Your task to perform on an android device: create a new album in the google photos Image 0: 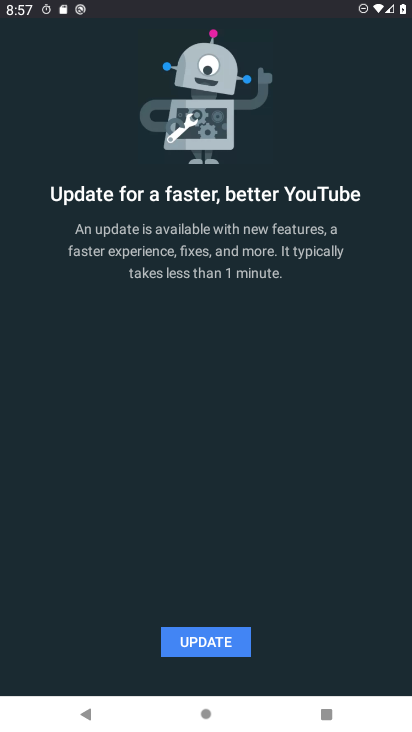
Step 0: press back button
Your task to perform on an android device: create a new album in the google photos Image 1: 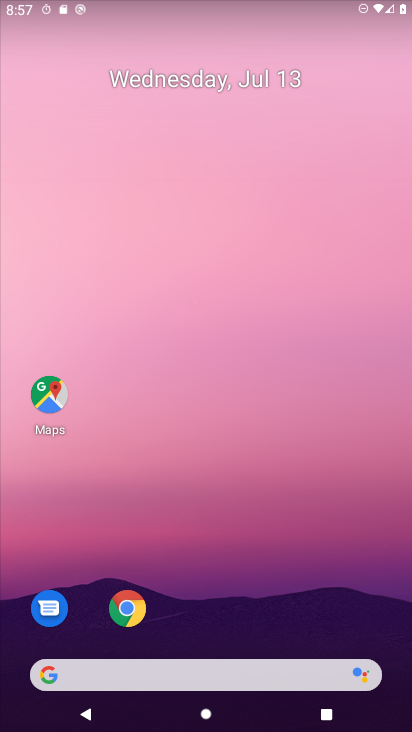
Step 1: drag from (245, 568) to (150, 306)
Your task to perform on an android device: create a new album in the google photos Image 2: 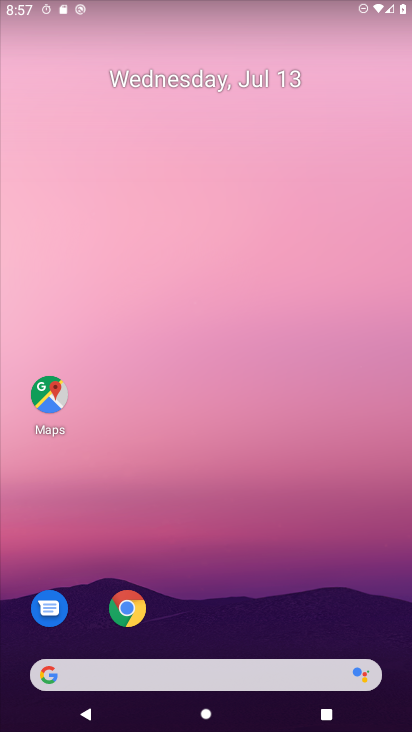
Step 2: drag from (273, 656) to (209, 328)
Your task to perform on an android device: create a new album in the google photos Image 3: 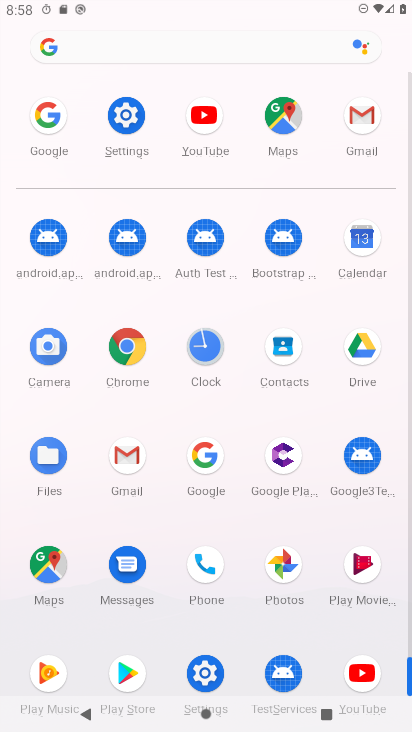
Step 3: click (278, 570)
Your task to perform on an android device: create a new album in the google photos Image 4: 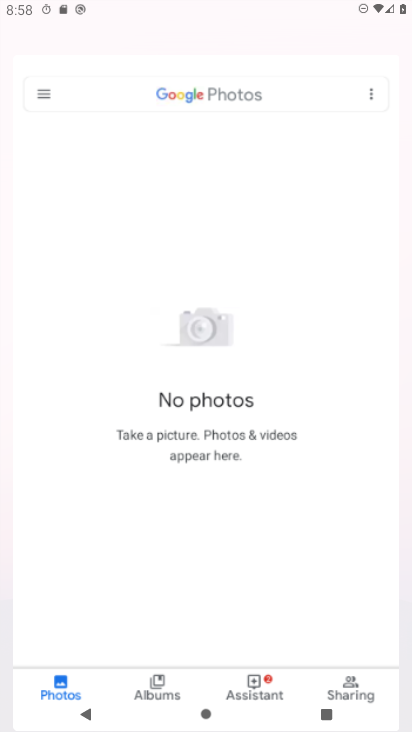
Step 4: click (278, 570)
Your task to perform on an android device: create a new album in the google photos Image 5: 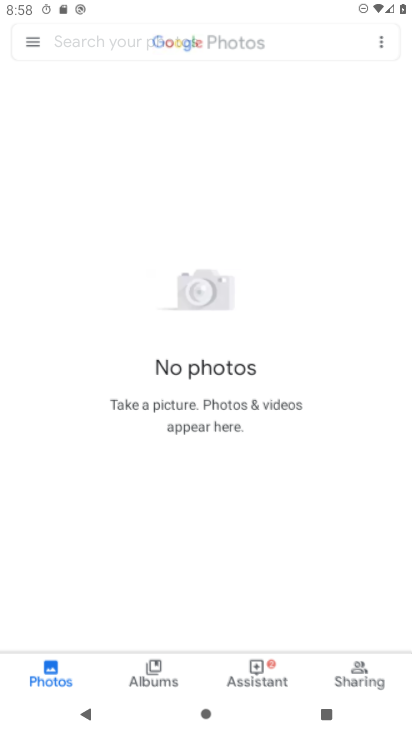
Step 5: click (279, 571)
Your task to perform on an android device: create a new album in the google photos Image 6: 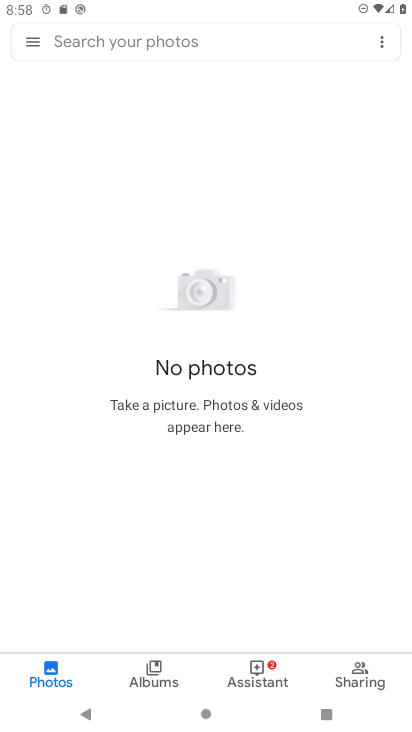
Step 6: click (154, 663)
Your task to perform on an android device: create a new album in the google photos Image 7: 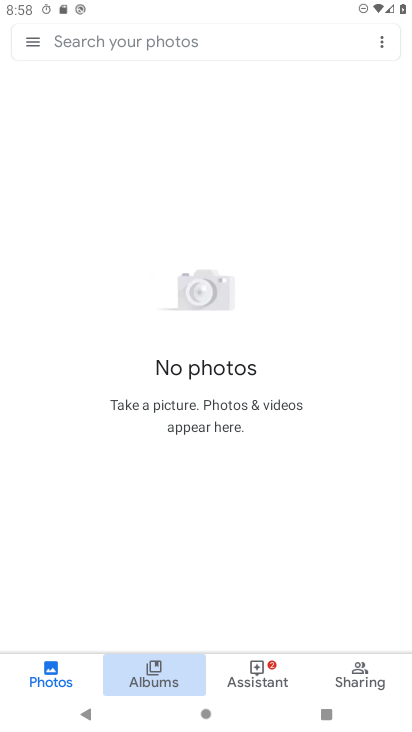
Step 7: click (154, 663)
Your task to perform on an android device: create a new album in the google photos Image 8: 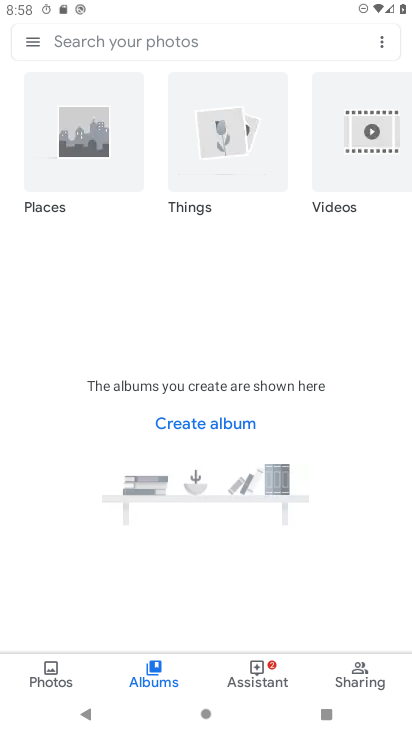
Step 8: click (210, 418)
Your task to perform on an android device: create a new album in the google photos Image 9: 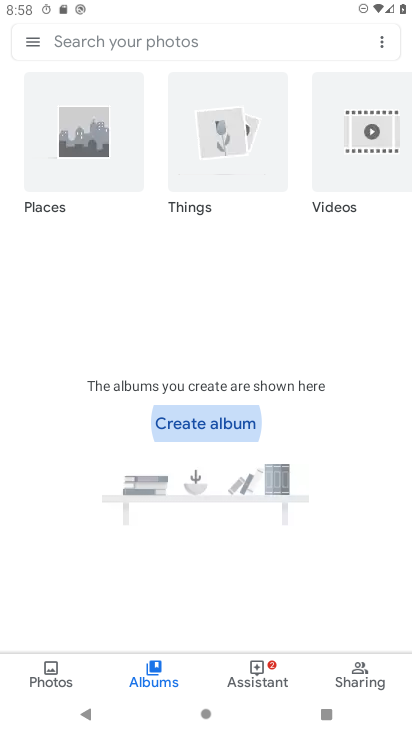
Step 9: click (212, 419)
Your task to perform on an android device: create a new album in the google photos Image 10: 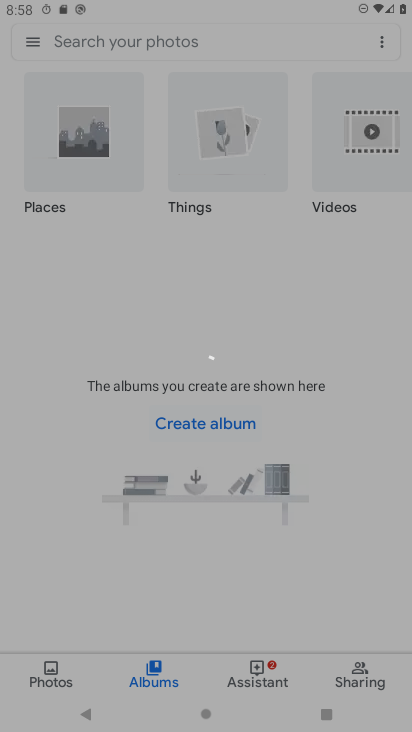
Step 10: click (212, 420)
Your task to perform on an android device: create a new album in the google photos Image 11: 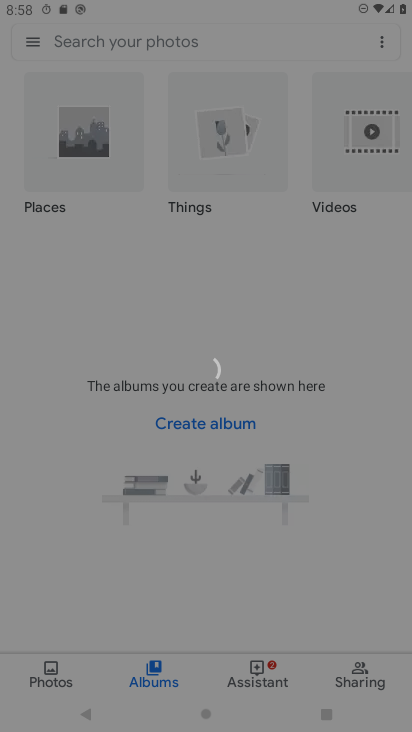
Step 11: click (212, 420)
Your task to perform on an android device: create a new album in the google photos Image 12: 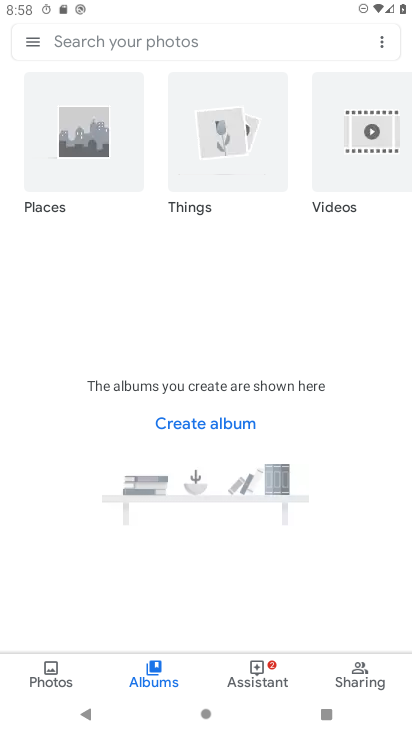
Step 12: click (213, 424)
Your task to perform on an android device: create a new album in the google photos Image 13: 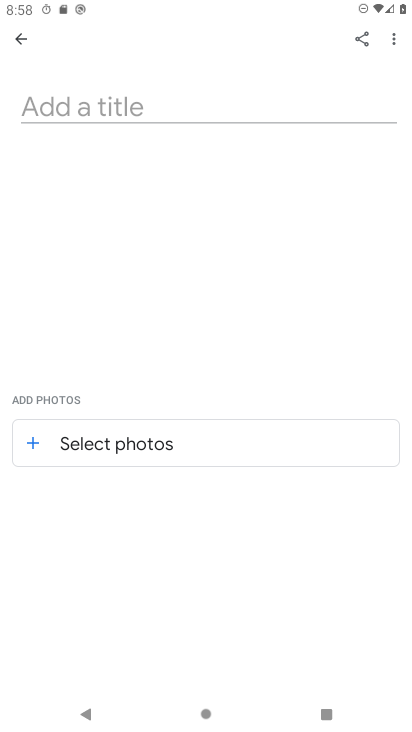
Step 13: click (104, 436)
Your task to perform on an android device: create a new album in the google photos Image 14: 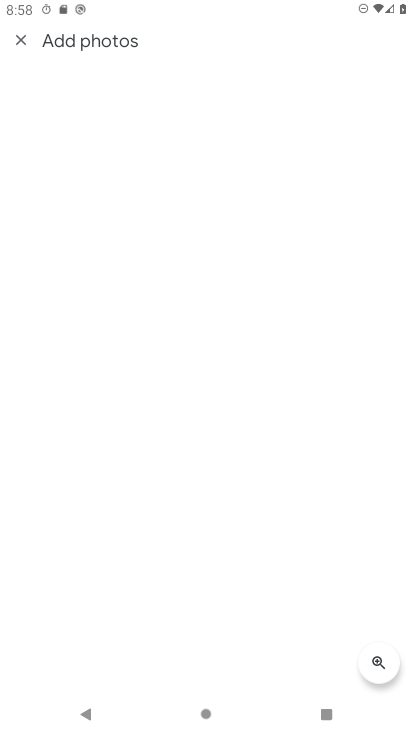
Step 14: click (383, 665)
Your task to perform on an android device: create a new album in the google photos Image 15: 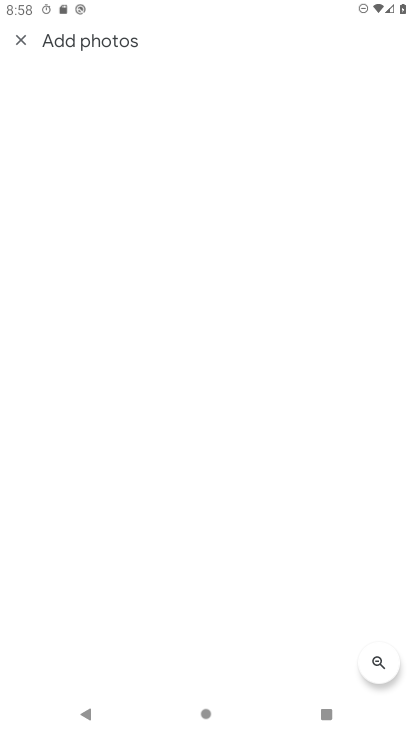
Step 15: click (16, 40)
Your task to perform on an android device: create a new album in the google photos Image 16: 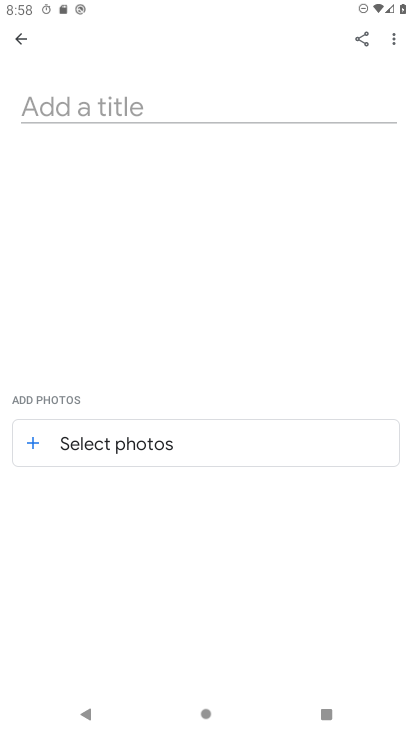
Step 16: click (73, 102)
Your task to perform on an android device: create a new album in the google photos Image 17: 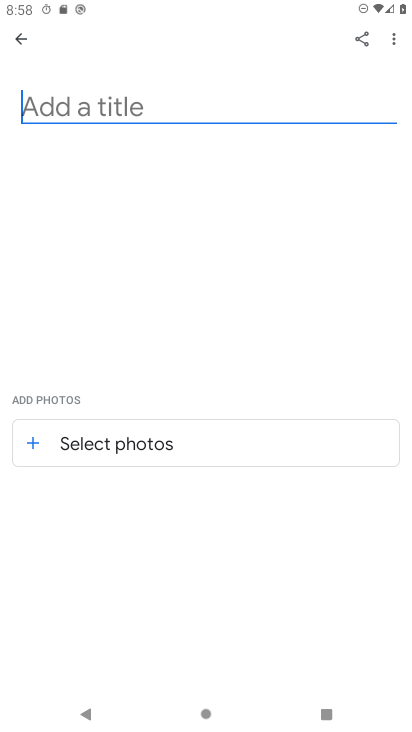
Step 17: click (75, 106)
Your task to perform on an android device: create a new album in the google photos Image 18: 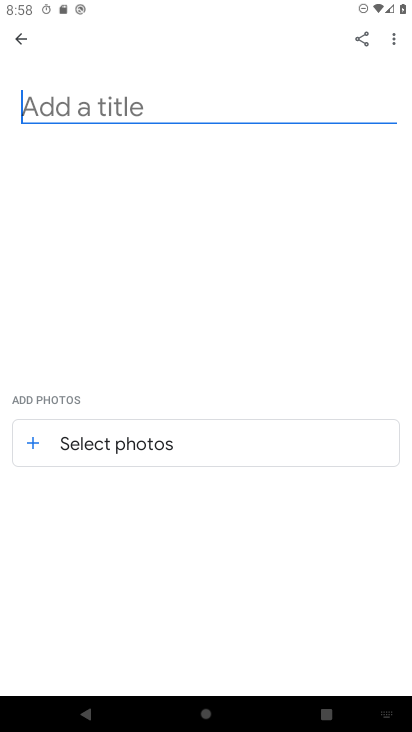
Step 18: click (77, 109)
Your task to perform on an android device: create a new album in the google photos Image 19: 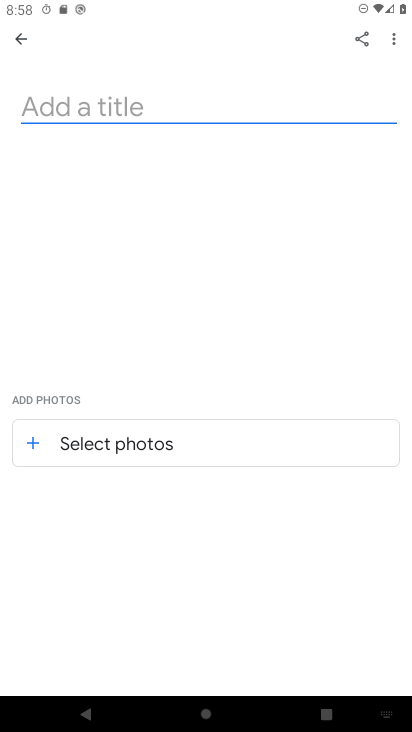
Step 19: click (82, 110)
Your task to perform on an android device: create a new album in the google photos Image 20: 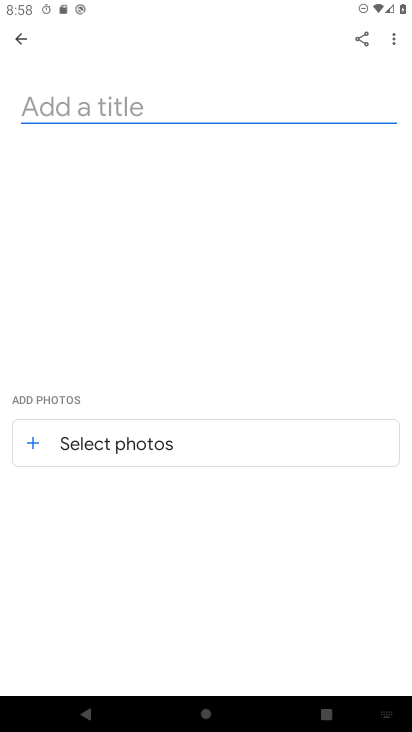
Step 20: type "rameshwr"
Your task to perform on an android device: create a new album in the google photos Image 21: 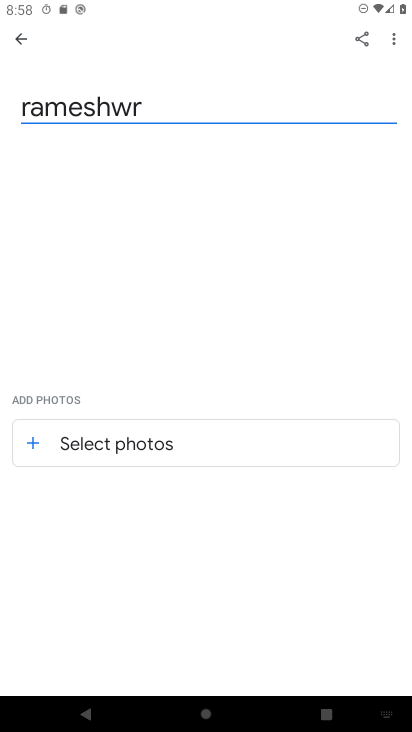
Step 21: click (81, 453)
Your task to perform on an android device: create a new album in the google photos Image 22: 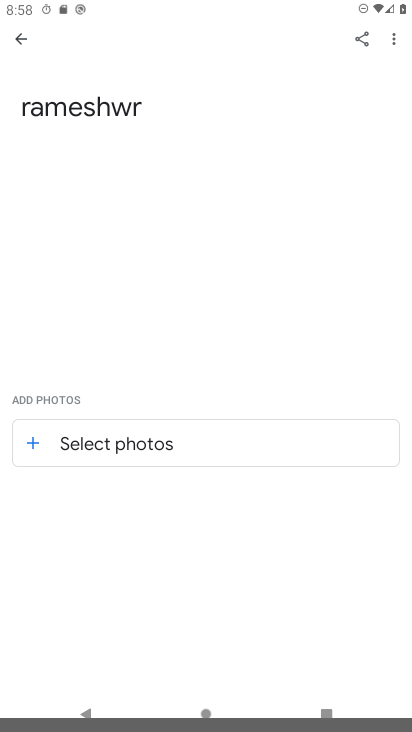
Step 22: click (81, 453)
Your task to perform on an android device: create a new album in the google photos Image 23: 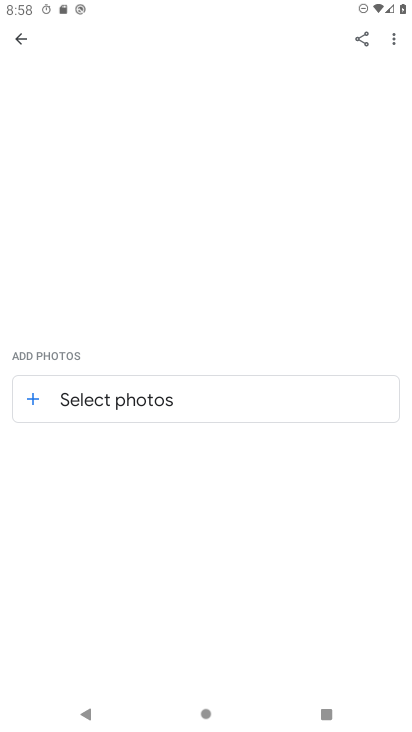
Step 23: click (81, 453)
Your task to perform on an android device: create a new album in the google photos Image 24: 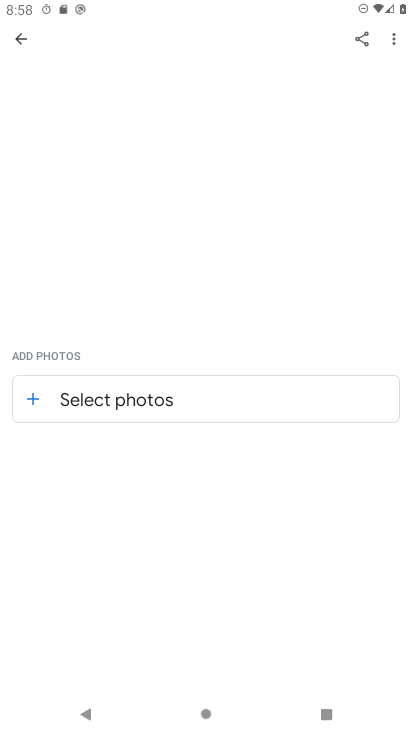
Step 24: click (81, 453)
Your task to perform on an android device: create a new album in the google photos Image 25: 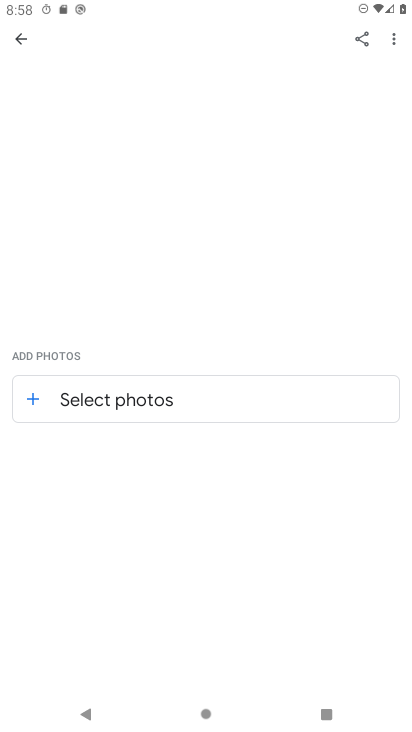
Step 25: click (81, 453)
Your task to perform on an android device: create a new album in the google photos Image 26: 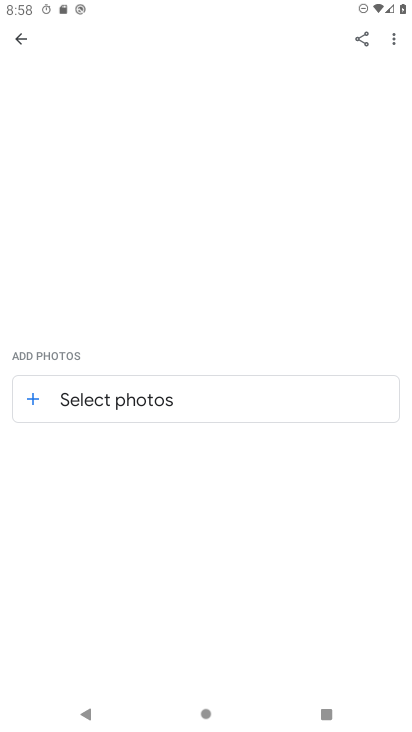
Step 26: click (81, 453)
Your task to perform on an android device: create a new album in the google photos Image 27: 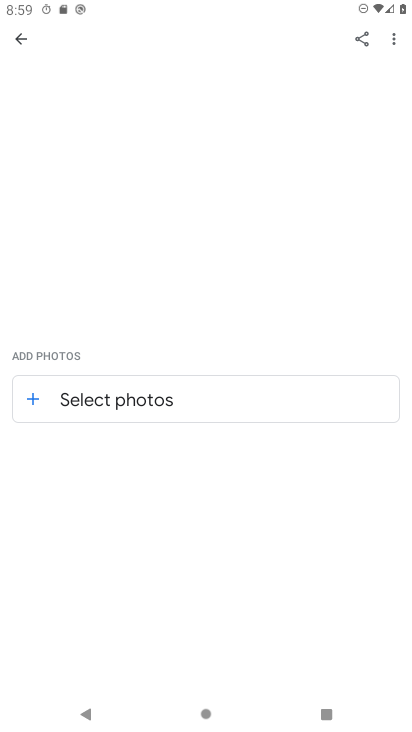
Step 27: click (70, 383)
Your task to perform on an android device: create a new album in the google photos Image 28: 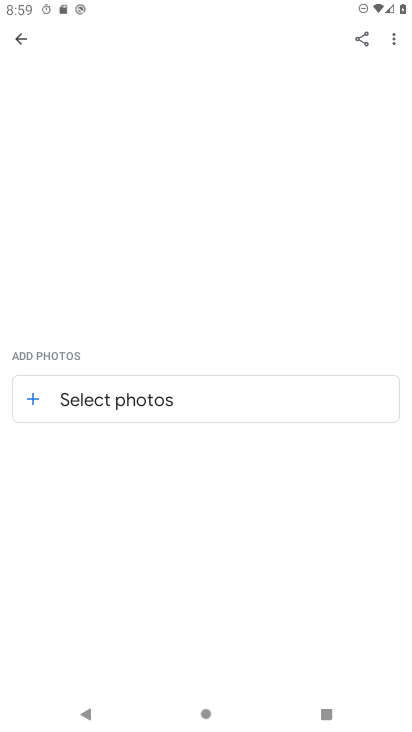
Step 28: click (70, 383)
Your task to perform on an android device: create a new album in the google photos Image 29: 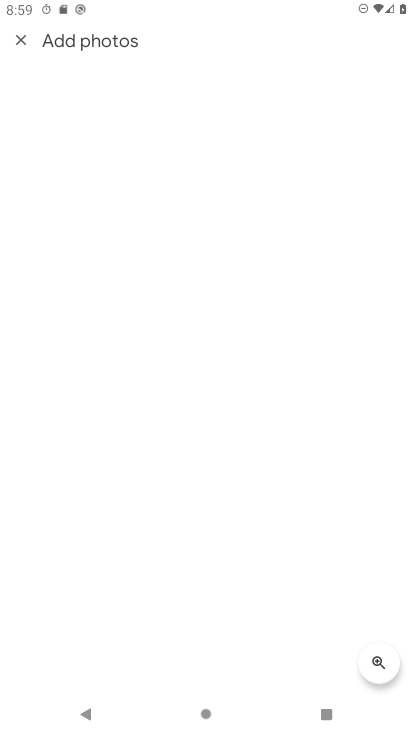
Step 29: click (32, 396)
Your task to perform on an android device: create a new album in the google photos Image 30: 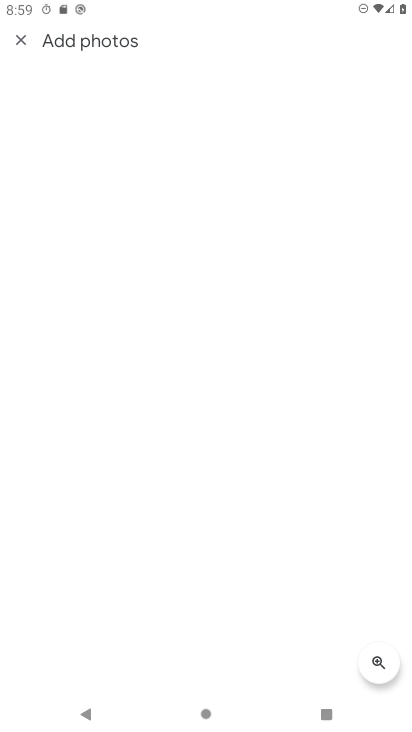
Step 30: click (32, 396)
Your task to perform on an android device: create a new album in the google photos Image 31: 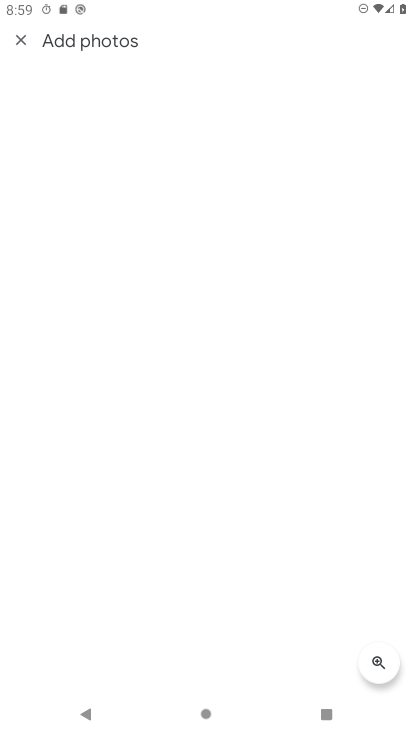
Step 31: click (32, 396)
Your task to perform on an android device: create a new album in the google photos Image 32: 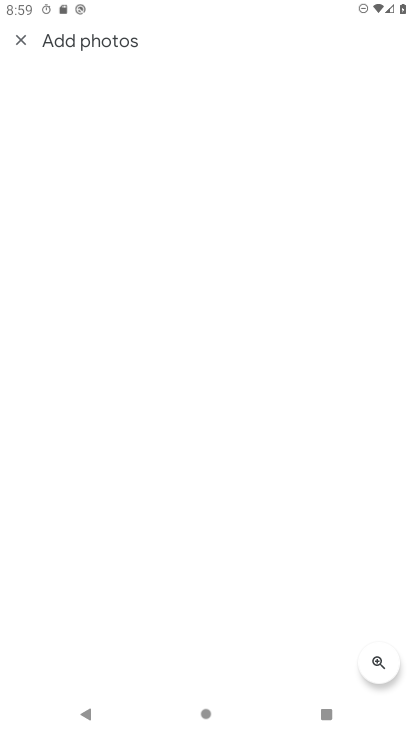
Step 32: task complete